Your task to perform on an android device: Go to Reddit.com Image 0: 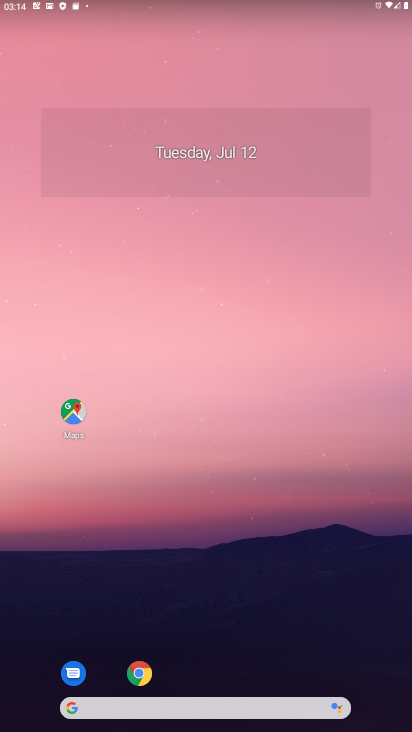
Step 0: click (167, 700)
Your task to perform on an android device: Go to Reddit.com Image 1: 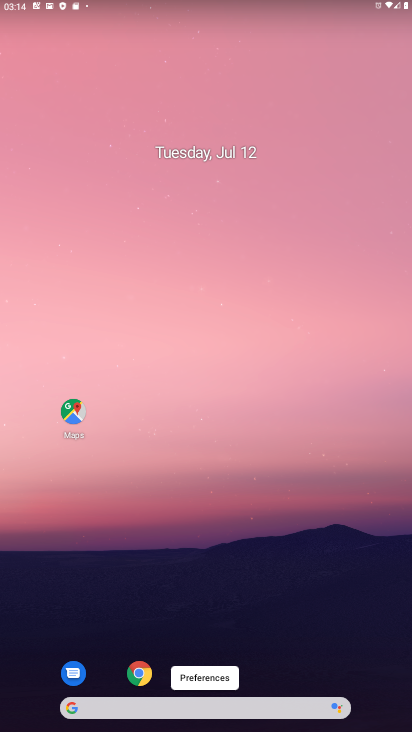
Step 1: click (177, 712)
Your task to perform on an android device: Go to Reddit.com Image 2: 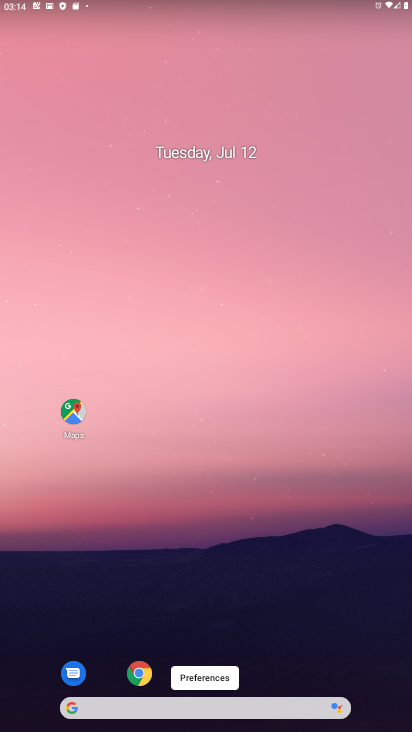
Step 2: click (248, 522)
Your task to perform on an android device: Go to Reddit.com Image 3: 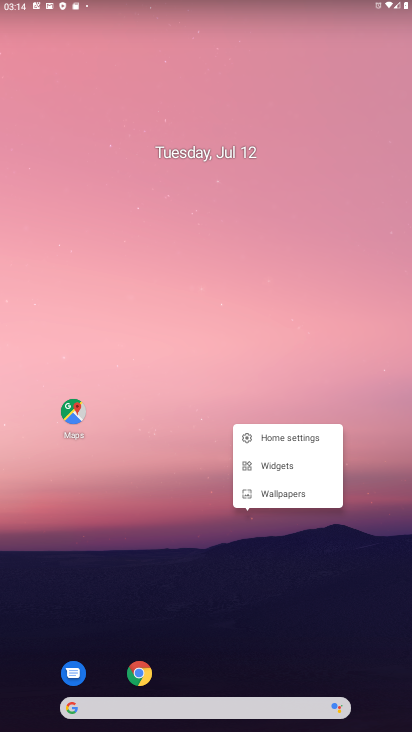
Step 3: click (103, 707)
Your task to perform on an android device: Go to Reddit.com Image 4: 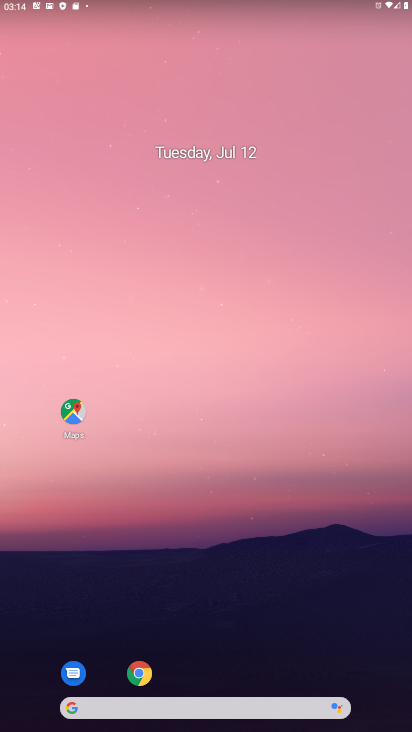
Step 4: click (68, 709)
Your task to perform on an android device: Go to Reddit.com Image 5: 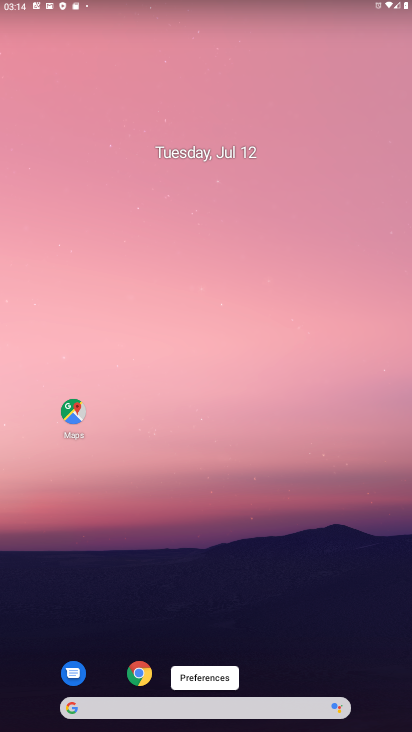
Step 5: press home button
Your task to perform on an android device: Go to Reddit.com Image 6: 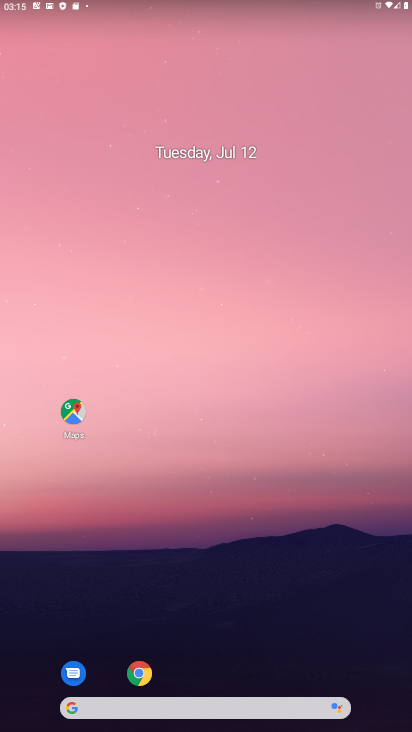
Step 6: press home button
Your task to perform on an android device: Go to Reddit.com Image 7: 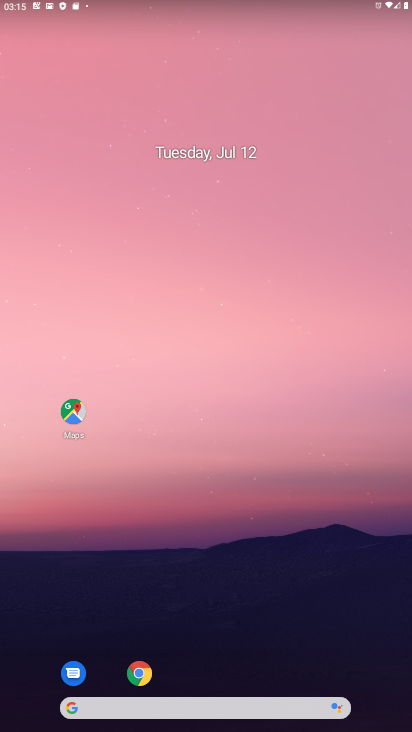
Step 7: drag from (262, 625) to (242, 187)
Your task to perform on an android device: Go to Reddit.com Image 8: 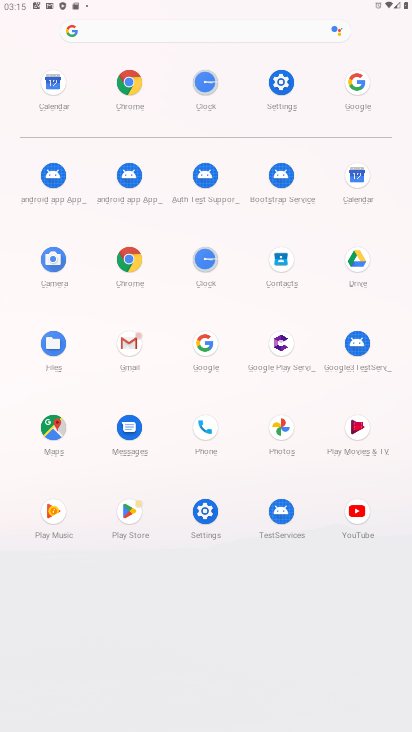
Step 8: click (210, 340)
Your task to perform on an android device: Go to Reddit.com Image 9: 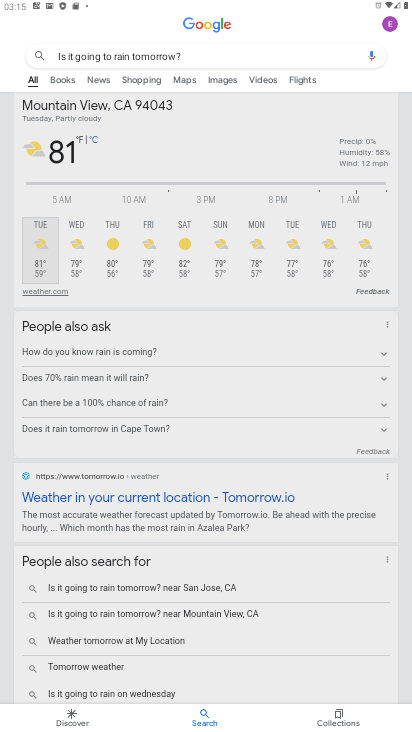
Step 9: click (189, 49)
Your task to perform on an android device: Go to Reddit.com Image 10: 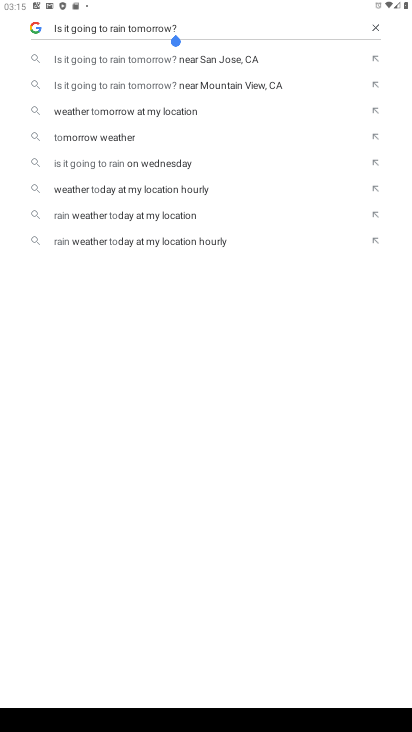
Step 10: click (372, 23)
Your task to perform on an android device: Go to Reddit.com Image 11: 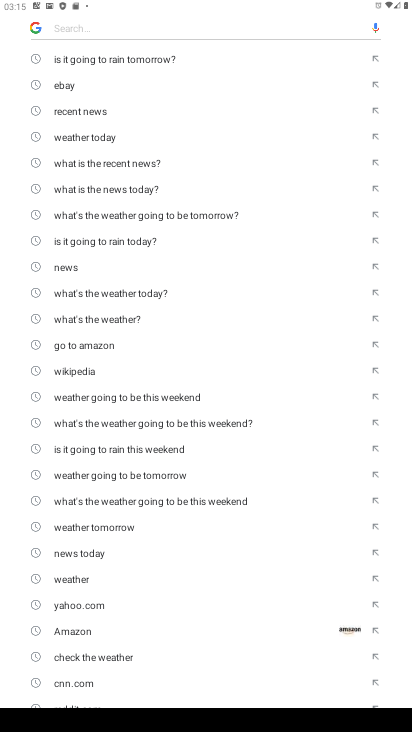
Step 11: type "Reddit.com"
Your task to perform on an android device: Go to Reddit.com Image 12: 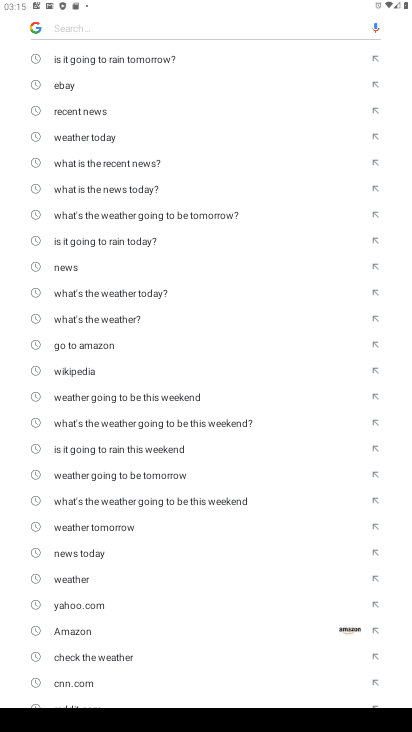
Step 12: click (72, 23)
Your task to perform on an android device: Go to Reddit.com Image 13: 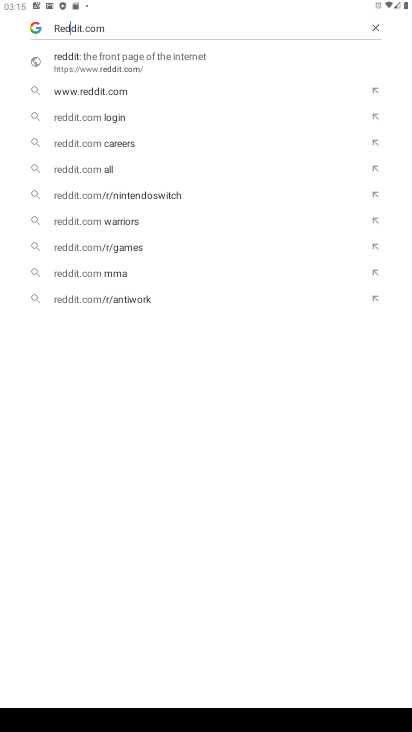
Step 13: click (120, 63)
Your task to perform on an android device: Go to Reddit.com Image 14: 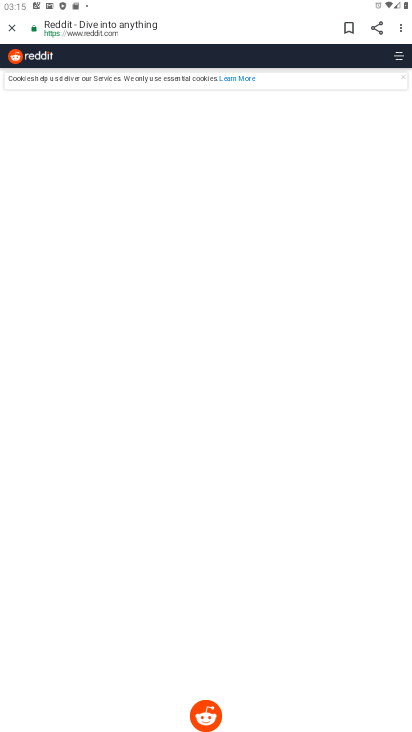
Step 14: task complete